Your task to perform on an android device: Search for the new steph curry shoes on Amazon. Image 0: 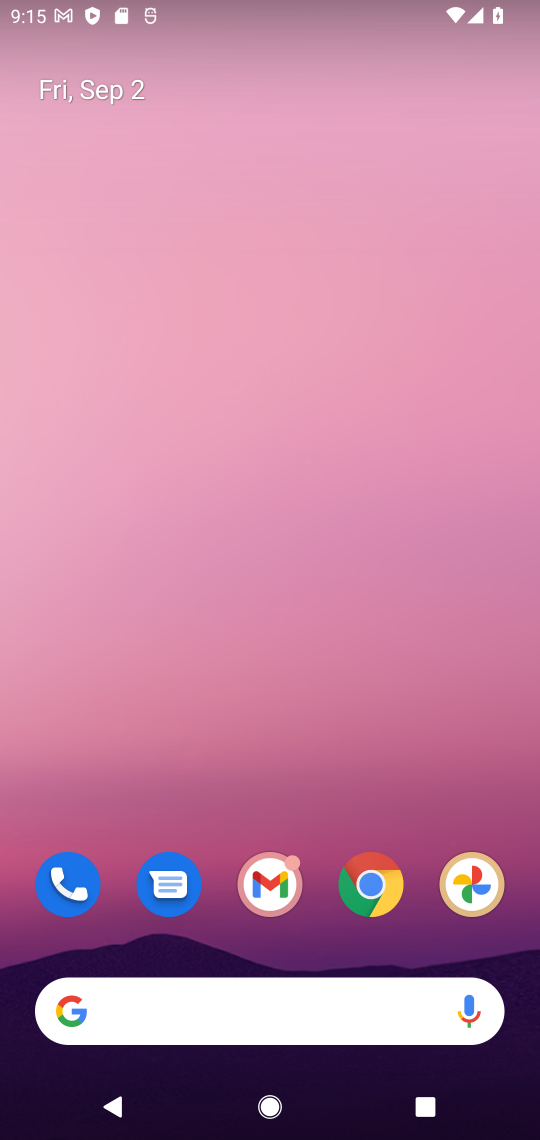
Step 0: click (361, 889)
Your task to perform on an android device: Search for the new steph curry shoes on Amazon. Image 1: 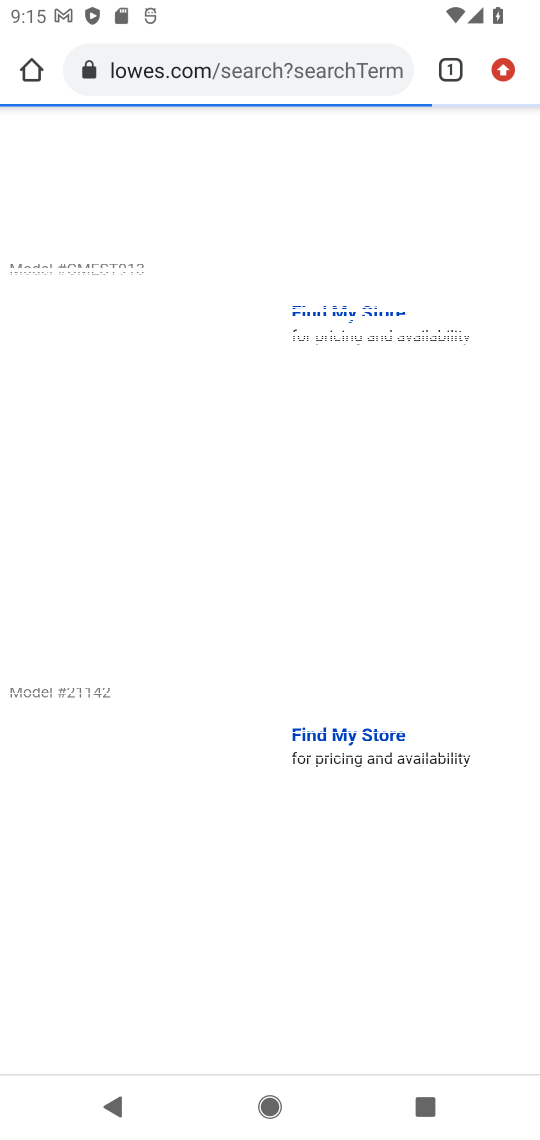
Step 1: click (202, 88)
Your task to perform on an android device: Search for the new steph curry shoes on Amazon. Image 2: 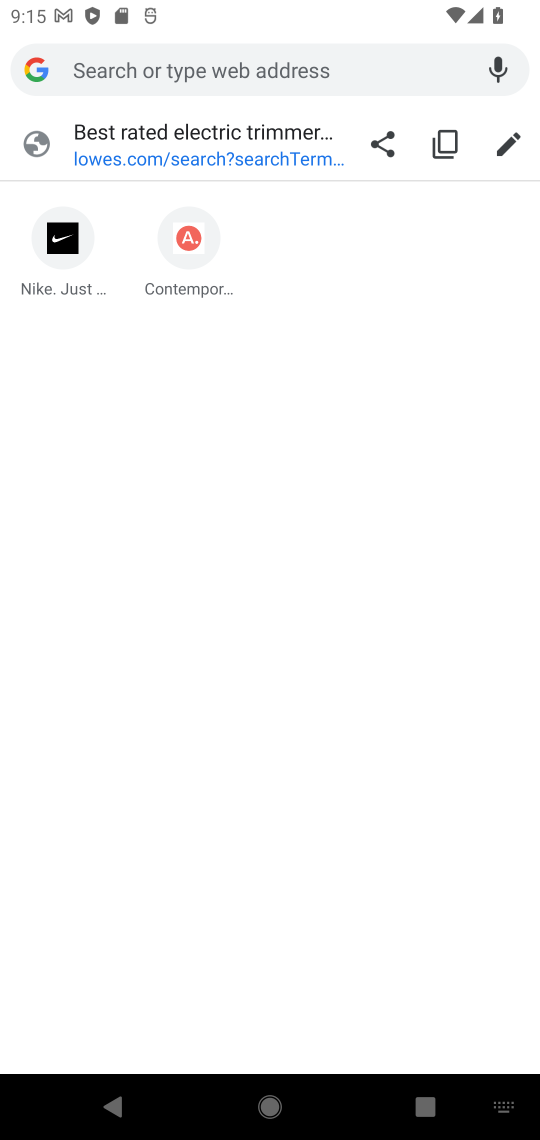
Step 2: type "amozon"
Your task to perform on an android device: Search for the new steph curry shoes on Amazon. Image 3: 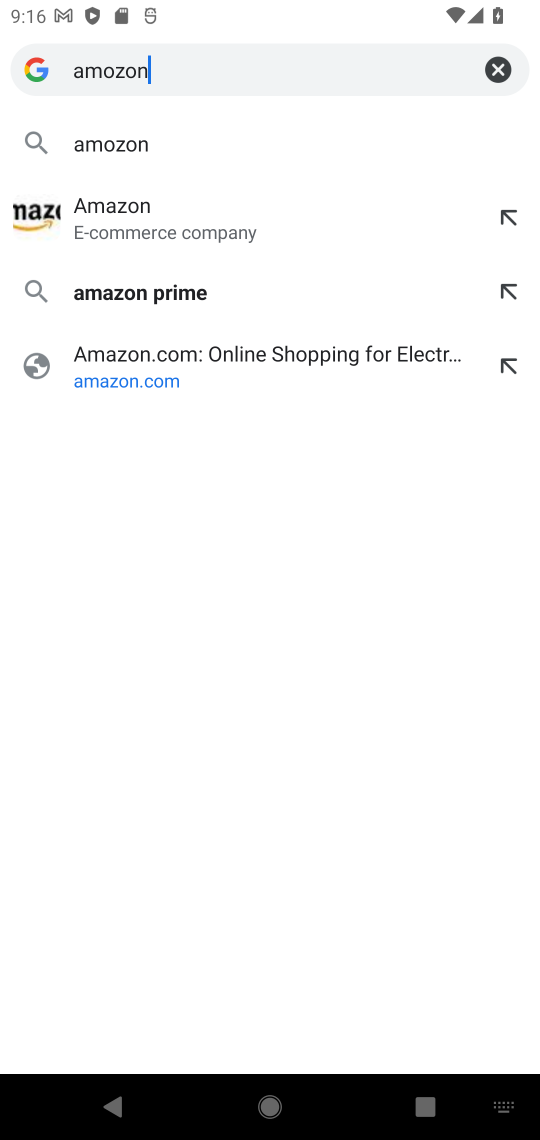
Step 3: click (95, 208)
Your task to perform on an android device: Search for the new steph curry shoes on Amazon. Image 4: 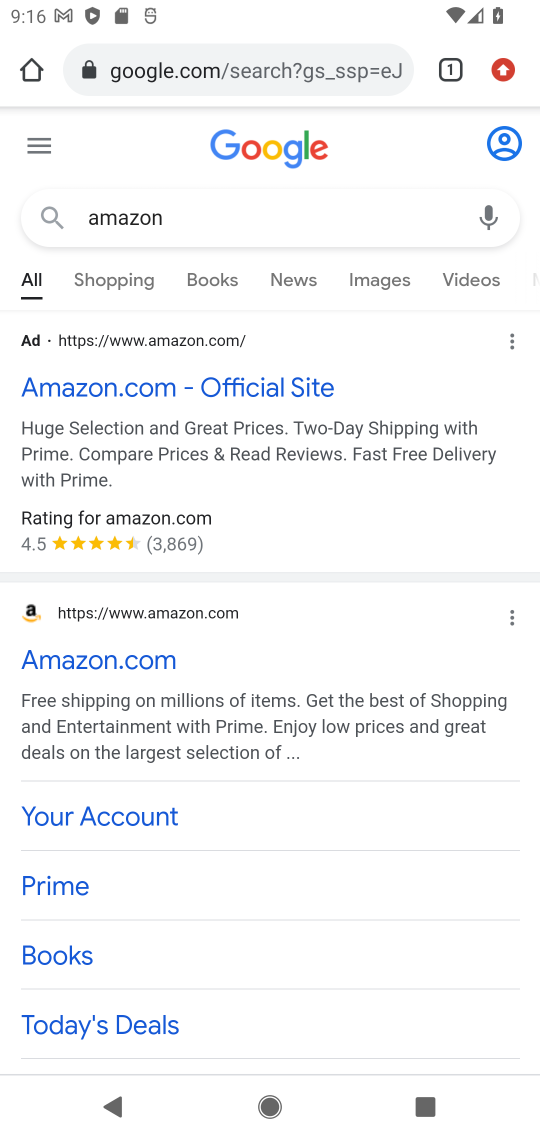
Step 4: click (134, 394)
Your task to perform on an android device: Search for the new steph curry shoes on Amazon. Image 5: 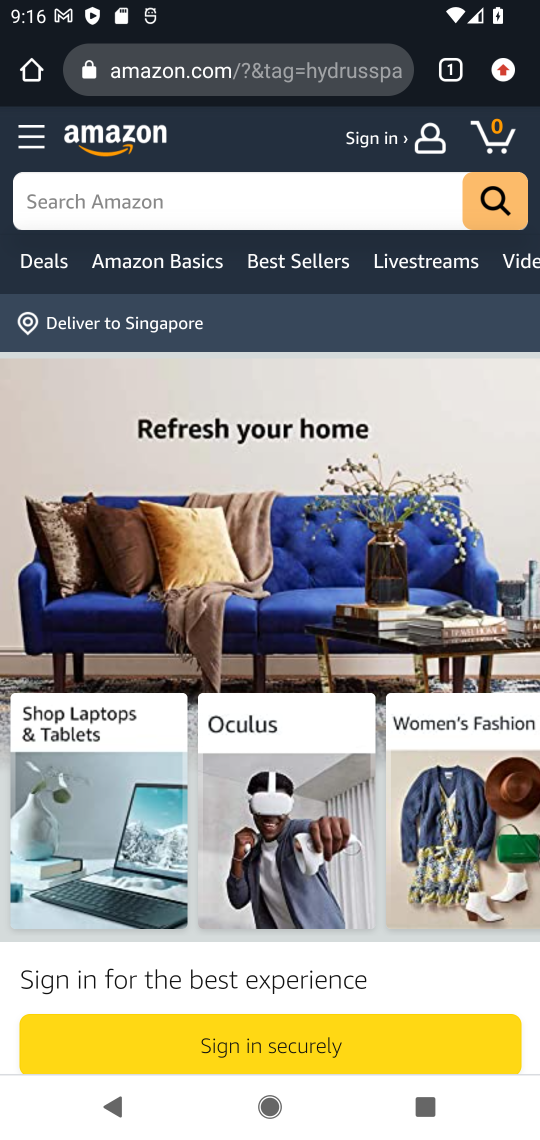
Step 5: click (154, 194)
Your task to perform on an android device: Search for the new steph curry shoes on Amazon. Image 6: 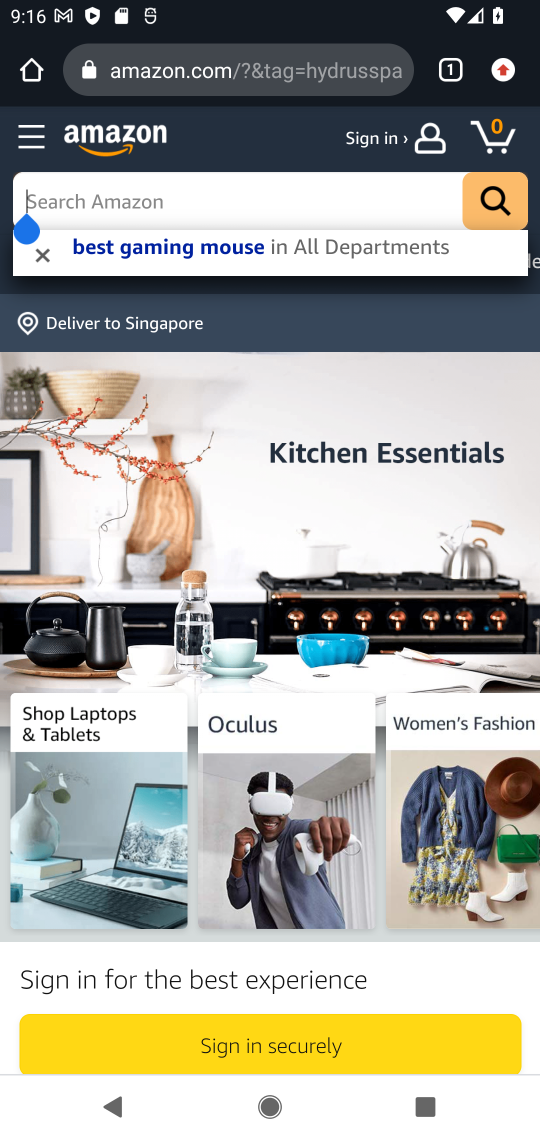
Step 6: type " new steph curry shoes"
Your task to perform on an android device: Search for the new steph curry shoes on Amazon. Image 7: 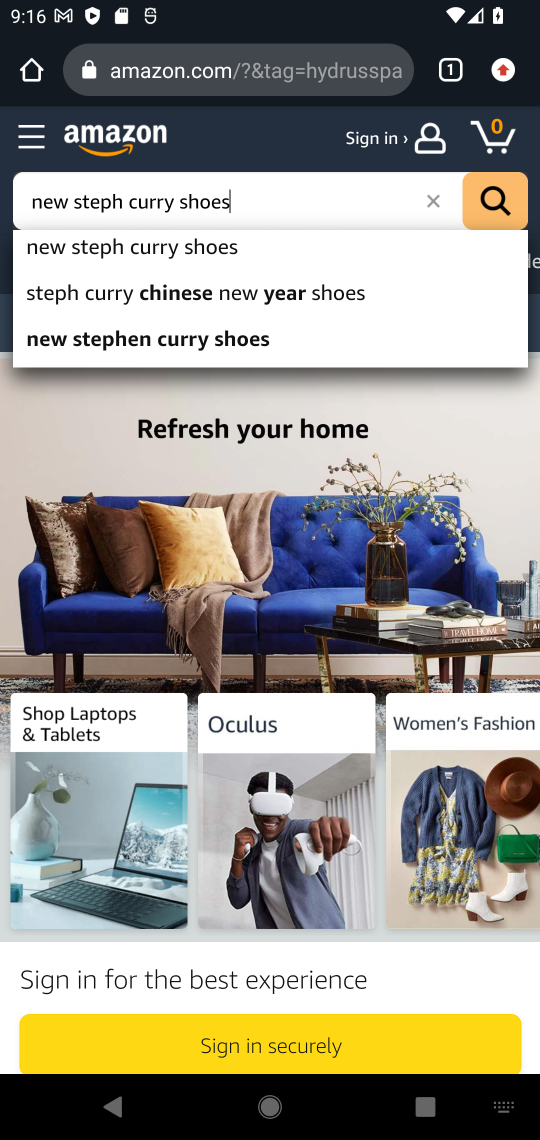
Step 7: click (188, 244)
Your task to perform on an android device: Search for the new steph curry shoes on Amazon. Image 8: 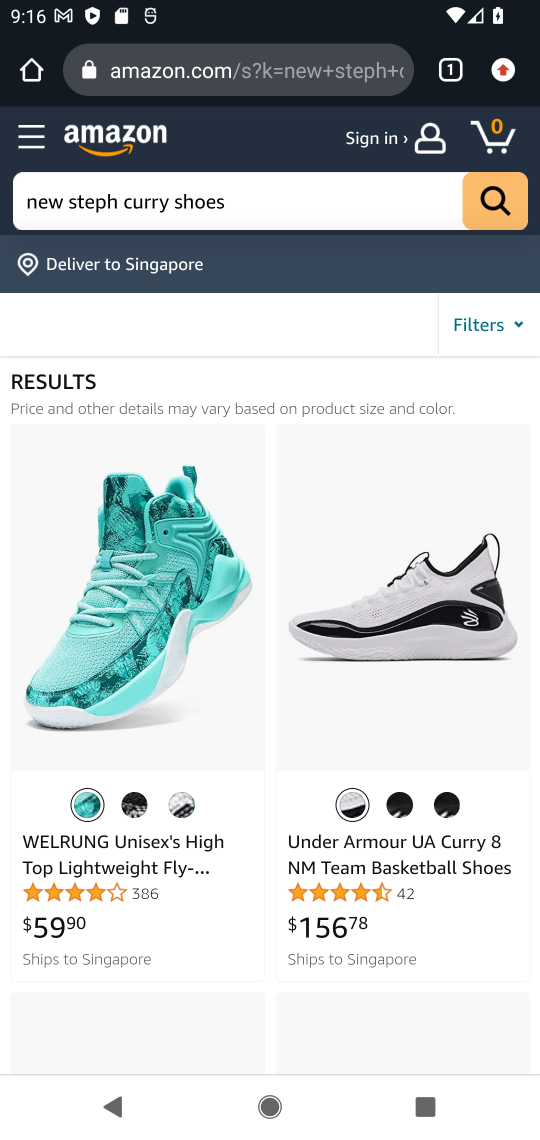
Step 8: task complete